Your task to perform on an android device: install app "Yahoo Mail" Image 0: 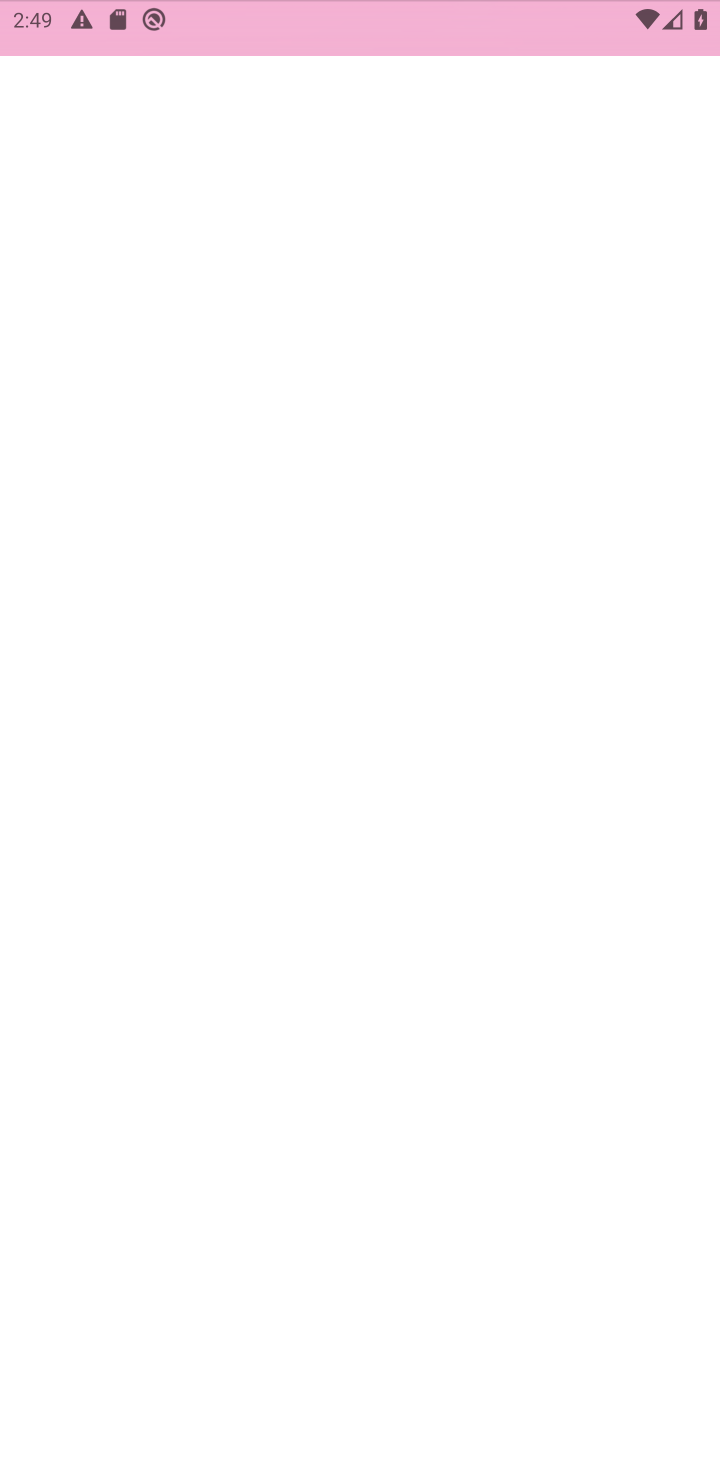
Step 0: click (587, 71)
Your task to perform on an android device: install app "Yahoo Mail" Image 1: 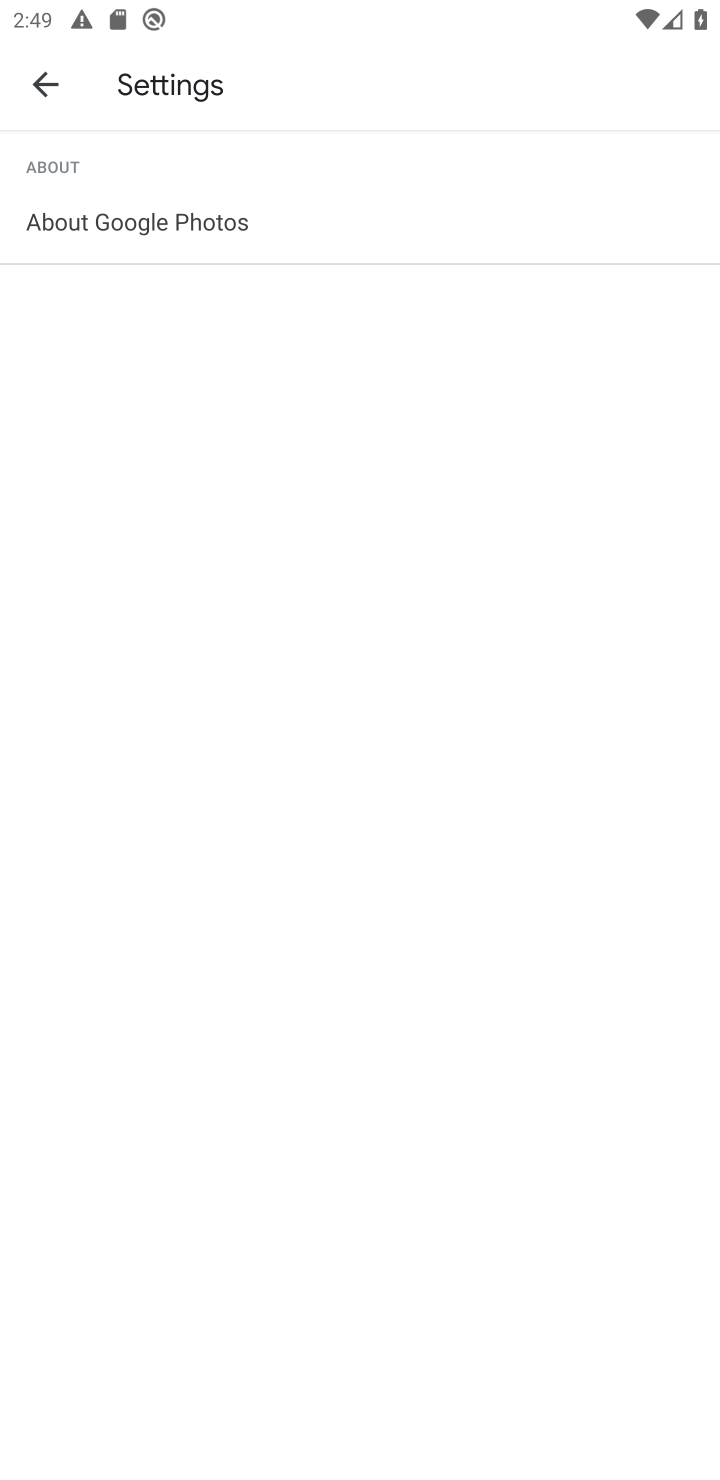
Step 1: press home button
Your task to perform on an android device: install app "Yahoo Mail" Image 2: 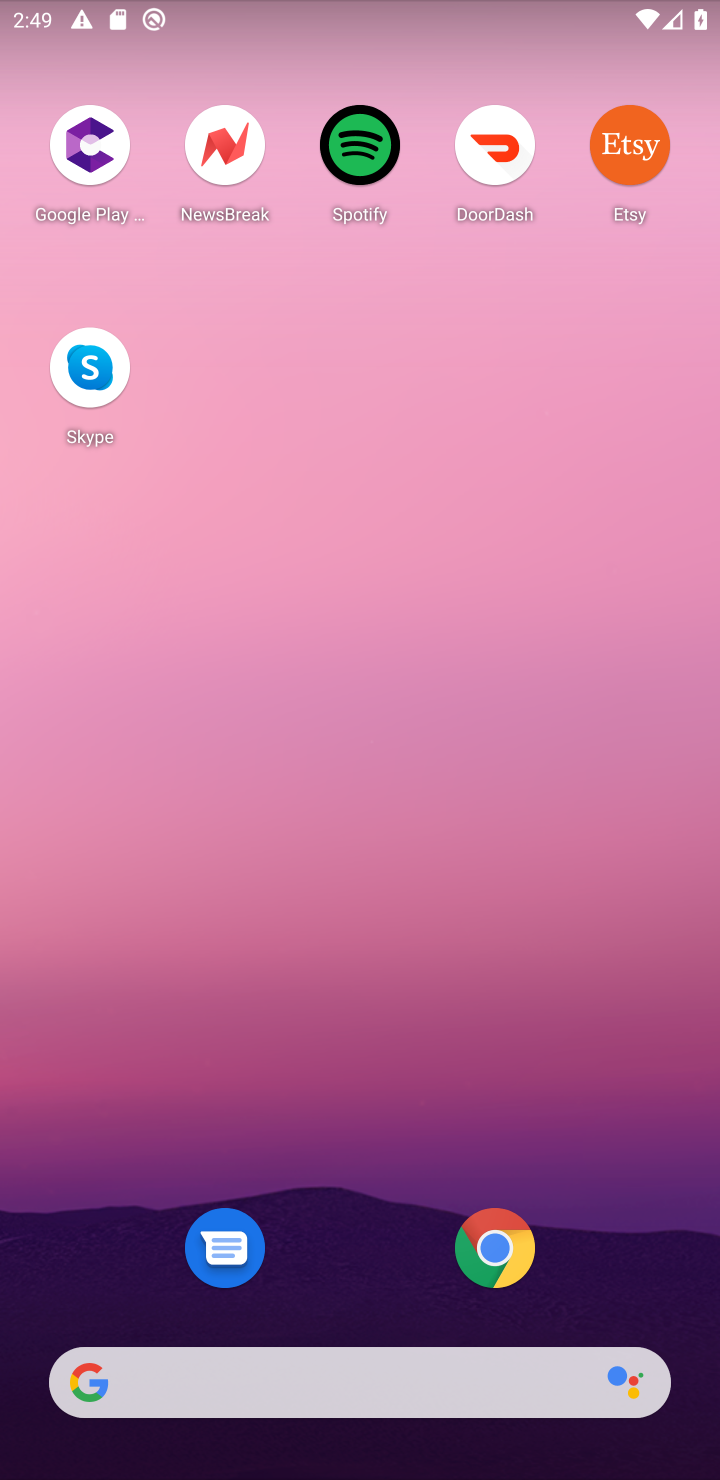
Step 2: drag from (371, 1203) to (355, 47)
Your task to perform on an android device: install app "Yahoo Mail" Image 3: 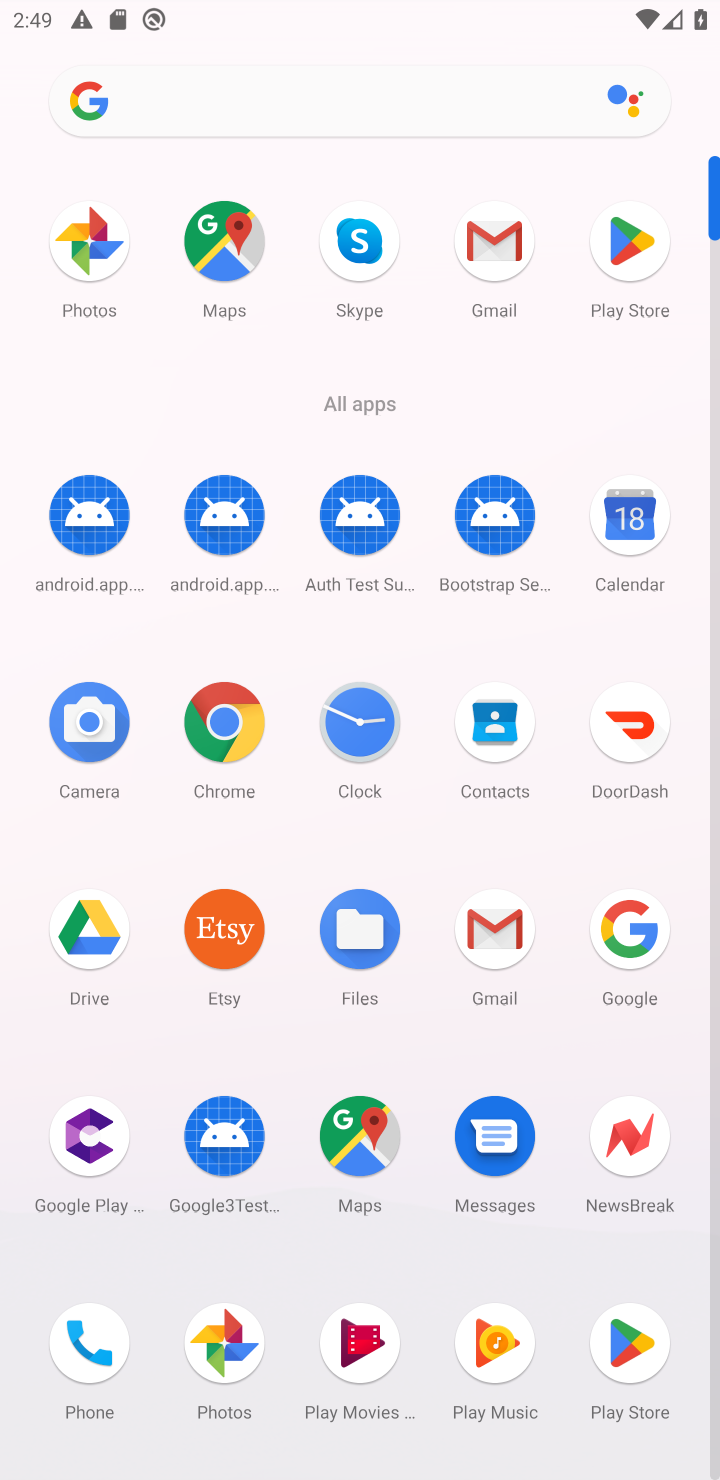
Step 3: click (634, 238)
Your task to perform on an android device: install app "Yahoo Mail" Image 4: 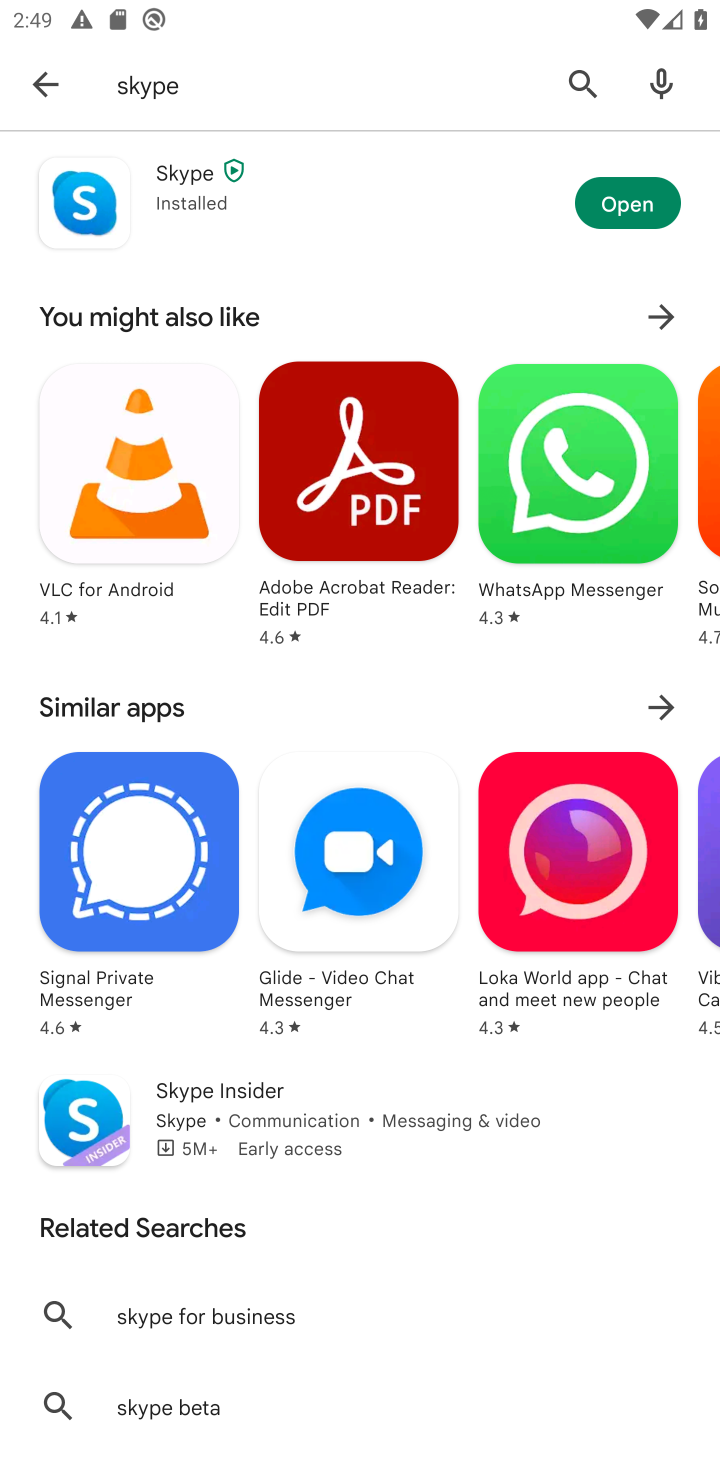
Step 4: click (577, 63)
Your task to perform on an android device: install app "Yahoo Mail" Image 5: 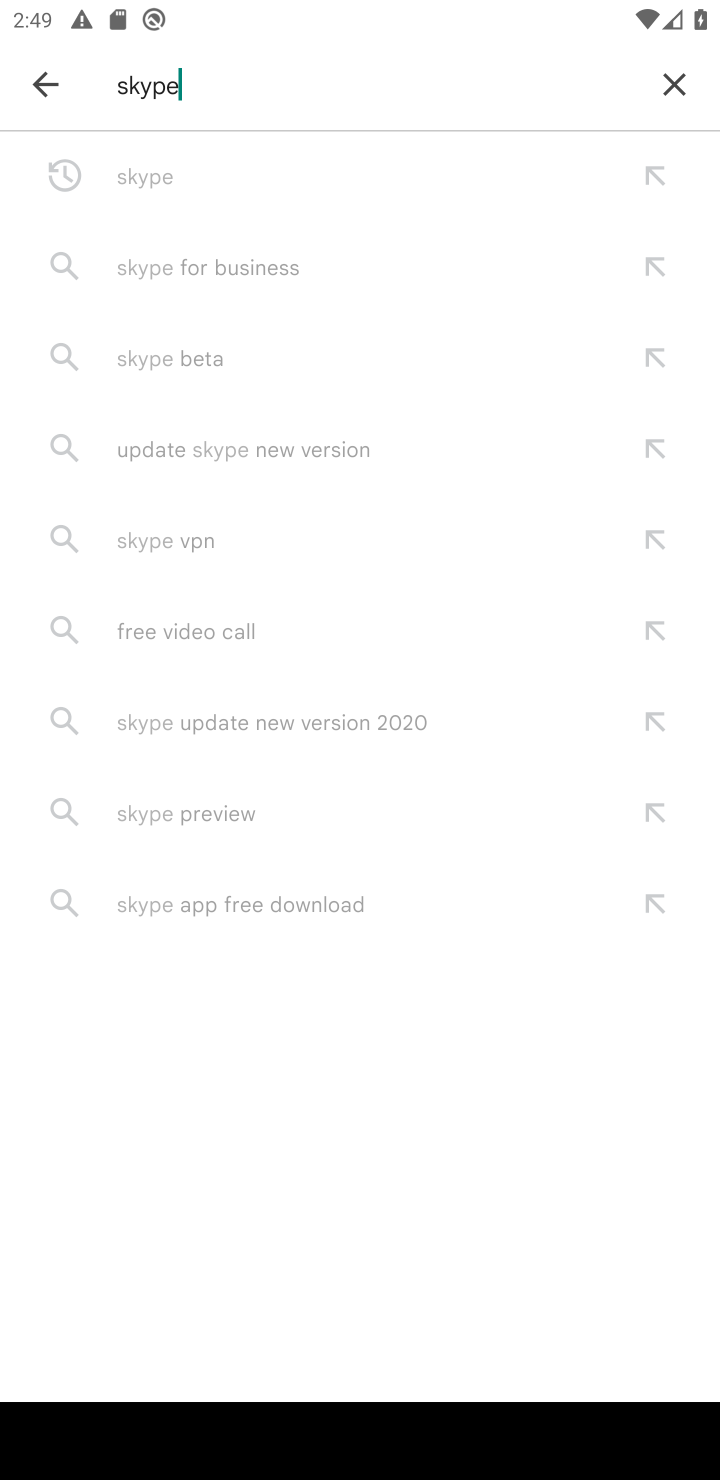
Step 5: click (677, 83)
Your task to perform on an android device: install app "Yahoo Mail" Image 6: 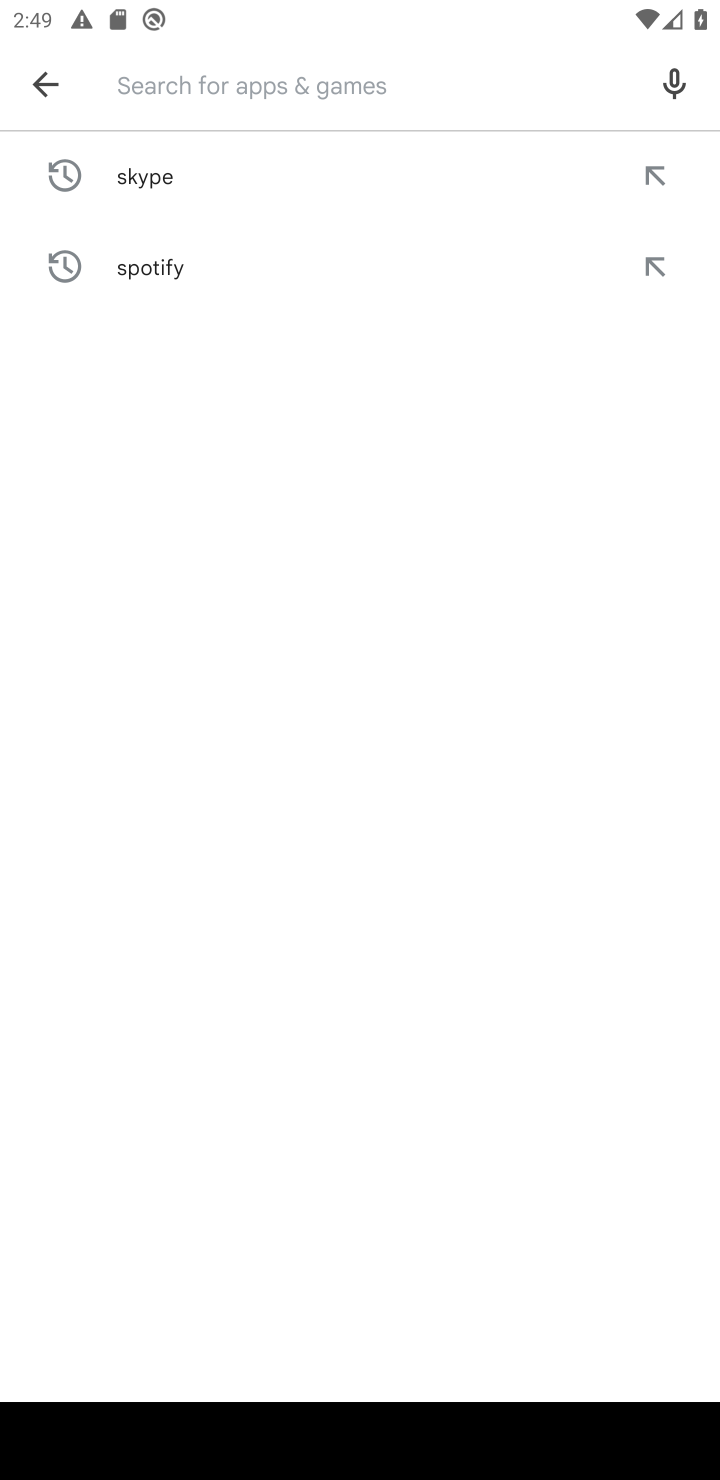
Step 6: type "Yahoo Mail"
Your task to perform on an android device: install app "Yahoo Mail" Image 7: 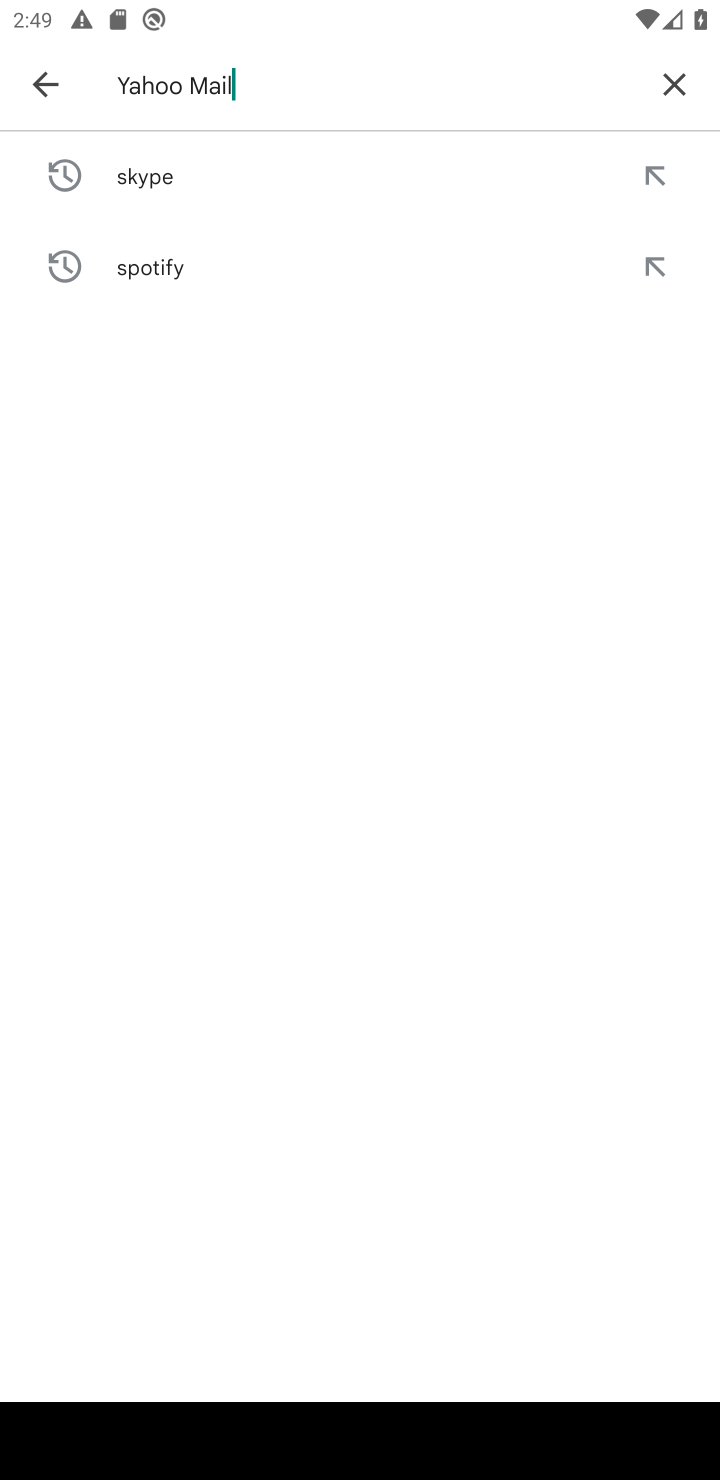
Step 7: type ""
Your task to perform on an android device: install app "Yahoo Mail" Image 8: 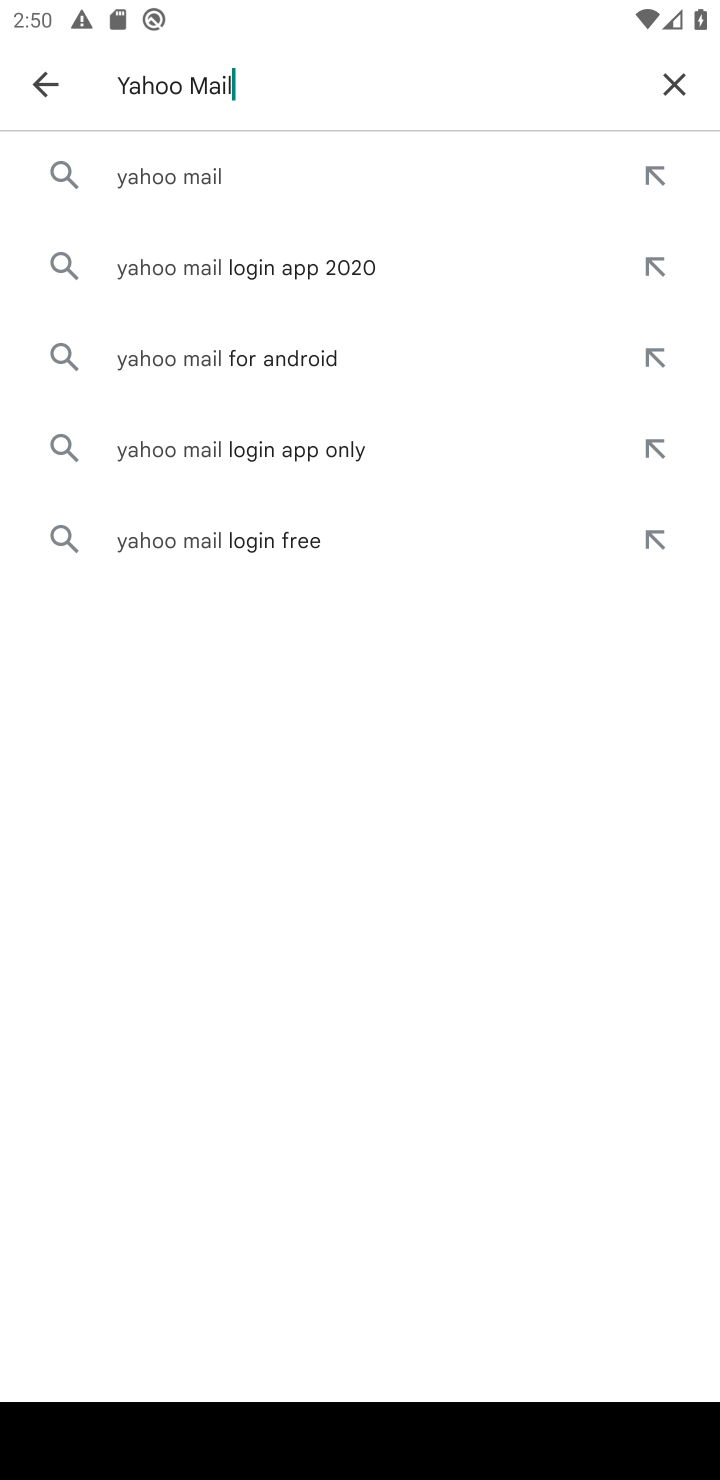
Step 8: click (181, 175)
Your task to perform on an android device: install app "Yahoo Mail" Image 9: 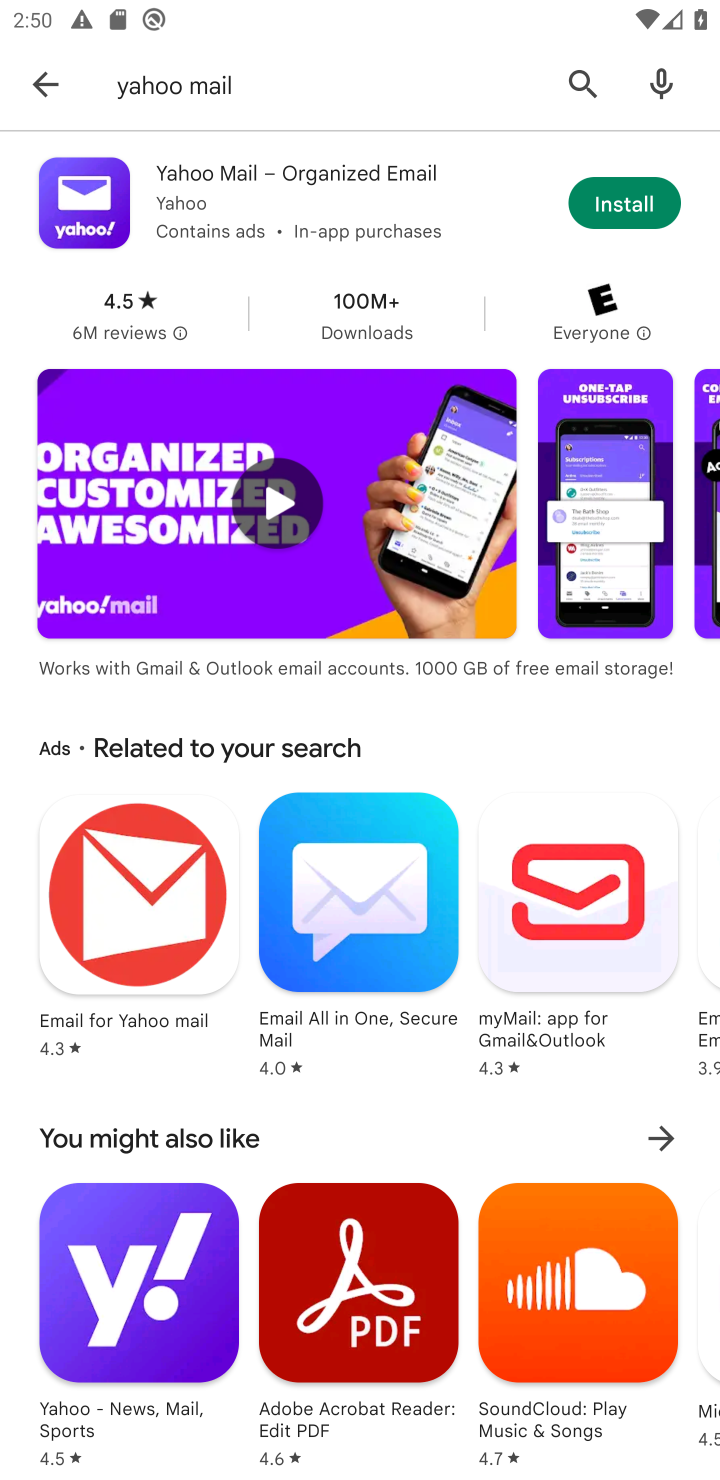
Step 9: click (631, 198)
Your task to perform on an android device: install app "Yahoo Mail" Image 10: 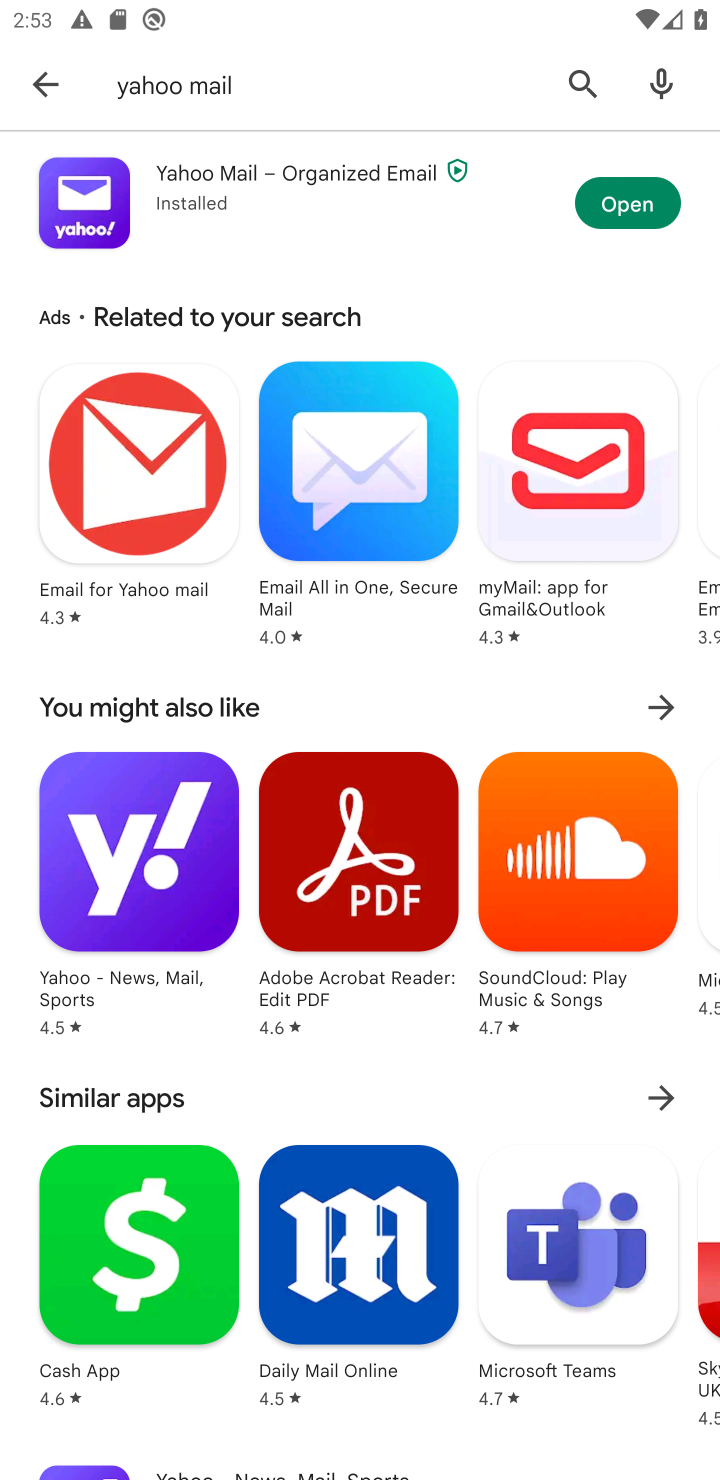
Step 10: task complete